Your task to perform on an android device: open device folders in google photos Image 0: 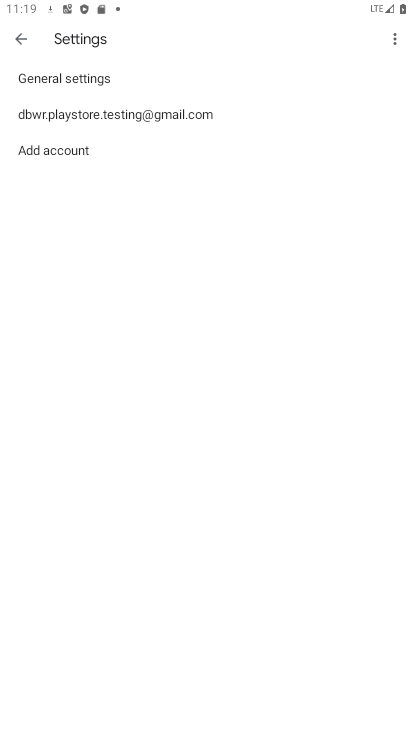
Step 0: press home button
Your task to perform on an android device: open device folders in google photos Image 1: 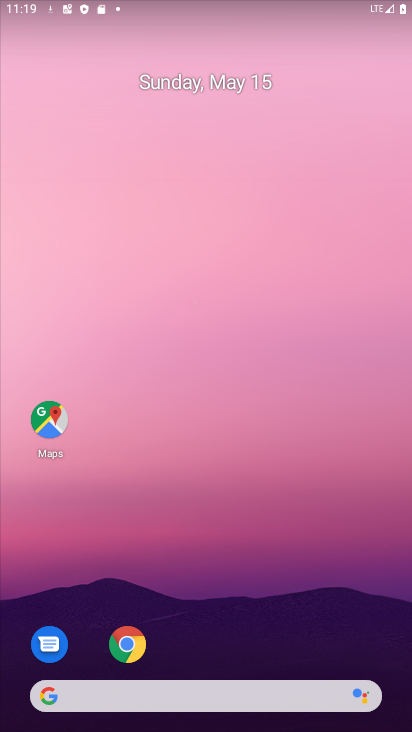
Step 1: drag from (269, 729) to (313, 330)
Your task to perform on an android device: open device folders in google photos Image 2: 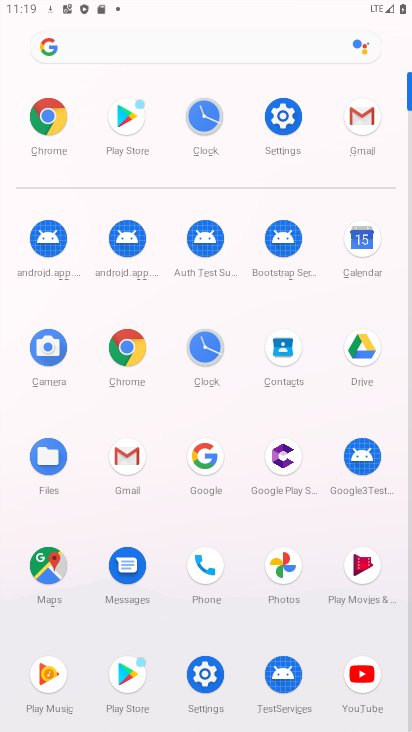
Step 2: click (276, 564)
Your task to perform on an android device: open device folders in google photos Image 3: 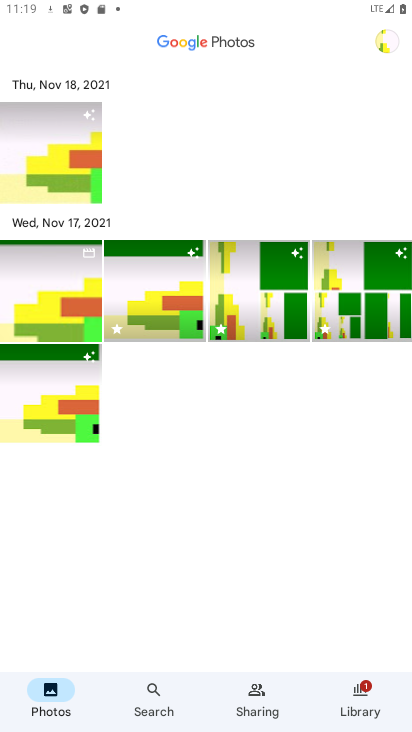
Step 3: click (135, 679)
Your task to perform on an android device: open device folders in google photos Image 4: 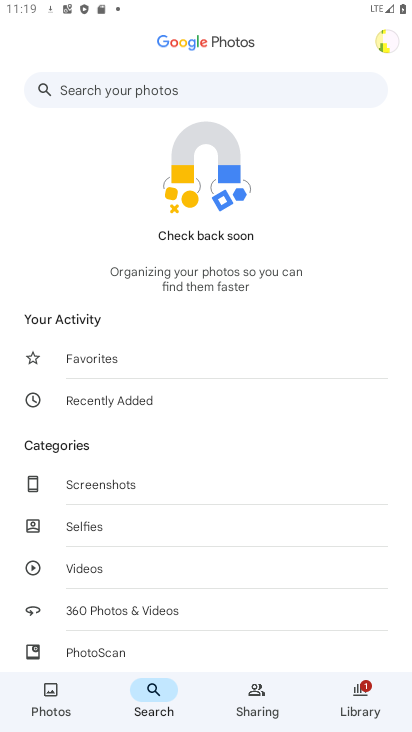
Step 4: click (99, 77)
Your task to perform on an android device: open device folders in google photos Image 5: 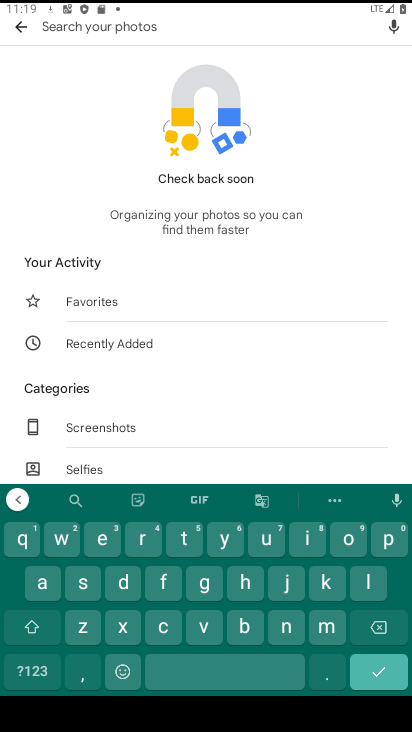
Step 5: click (114, 579)
Your task to perform on an android device: open device folders in google photos Image 6: 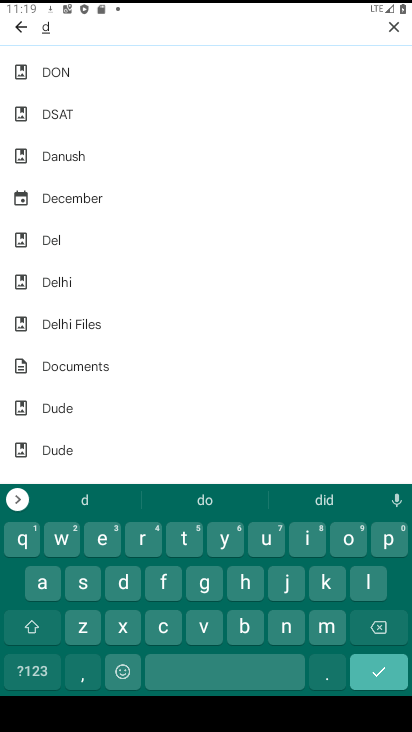
Step 6: click (107, 539)
Your task to perform on an android device: open device folders in google photos Image 7: 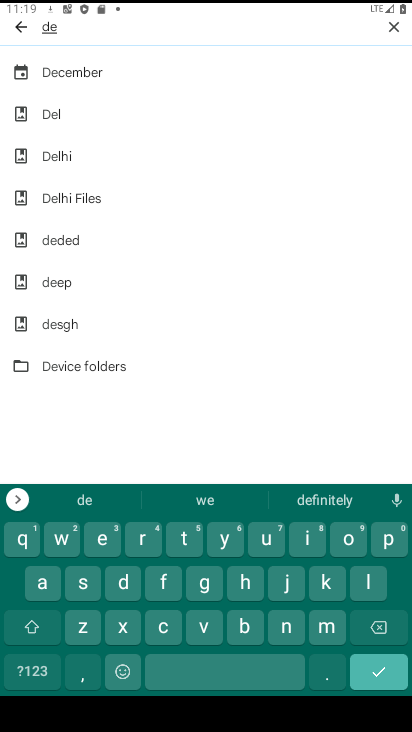
Step 7: click (89, 362)
Your task to perform on an android device: open device folders in google photos Image 8: 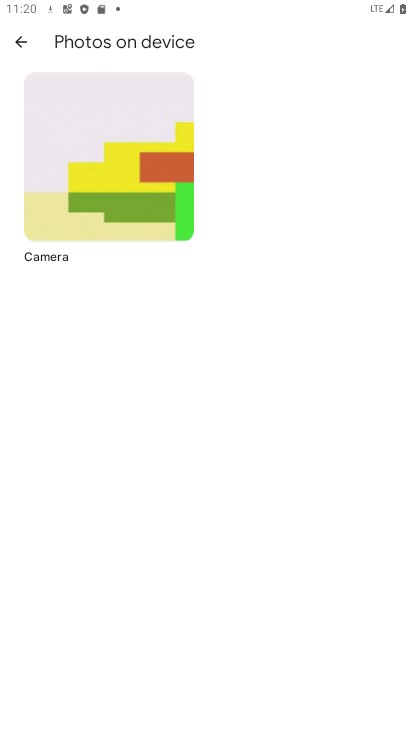
Step 8: task complete